Your task to perform on an android device: turn off data saver in the chrome app Image 0: 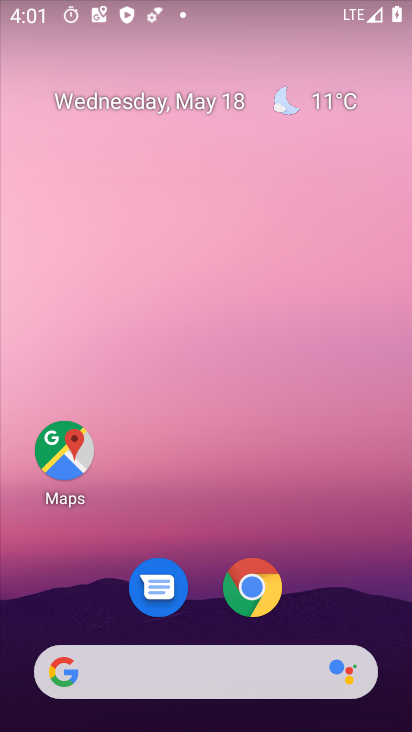
Step 0: drag from (189, 621) to (220, 208)
Your task to perform on an android device: turn off data saver in the chrome app Image 1: 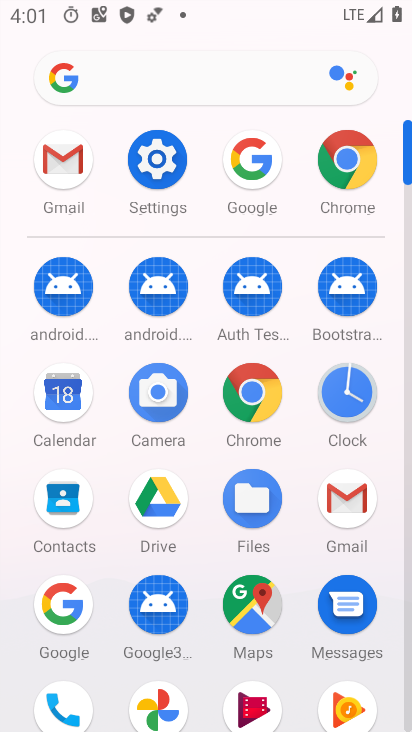
Step 1: click (351, 184)
Your task to perform on an android device: turn off data saver in the chrome app Image 2: 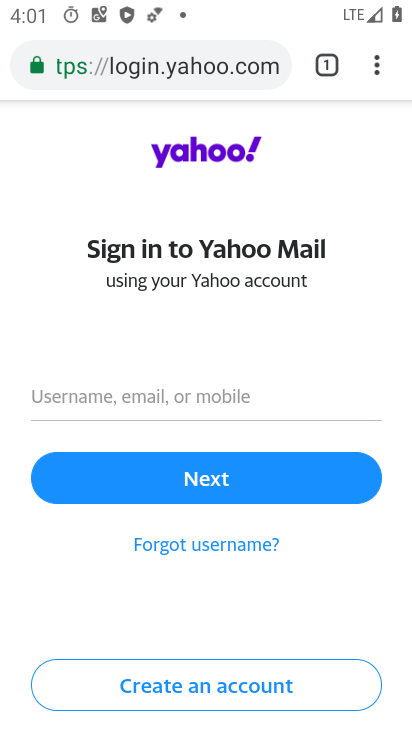
Step 2: click (383, 71)
Your task to perform on an android device: turn off data saver in the chrome app Image 3: 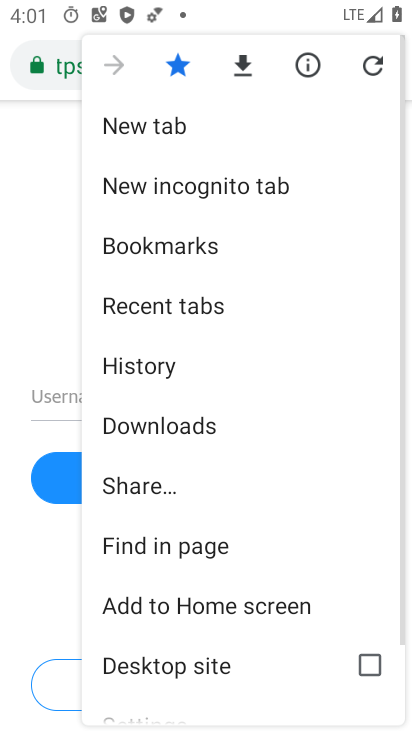
Step 3: drag from (219, 495) to (218, 187)
Your task to perform on an android device: turn off data saver in the chrome app Image 4: 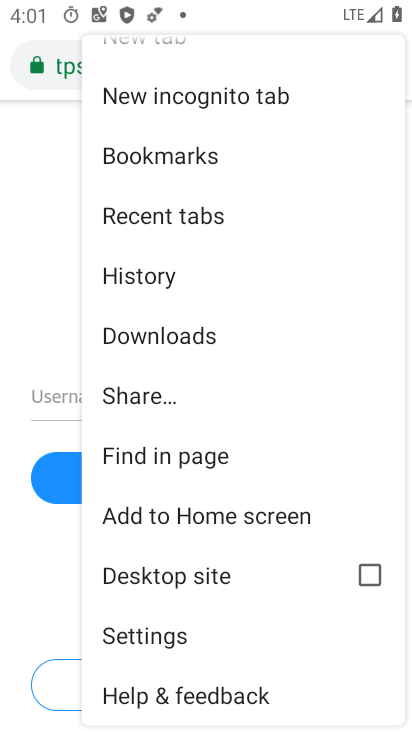
Step 4: click (165, 644)
Your task to perform on an android device: turn off data saver in the chrome app Image 5: 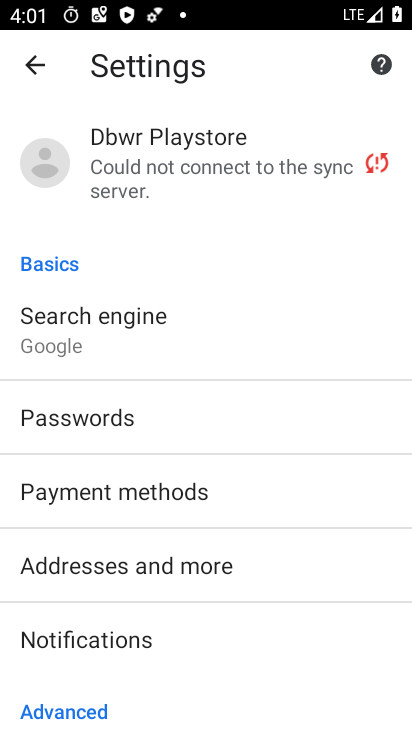
Step 5: drag from (167, 631) to (199, 330)
Your task to perform on an android device: turn off data saver in the chrome app Image 6: 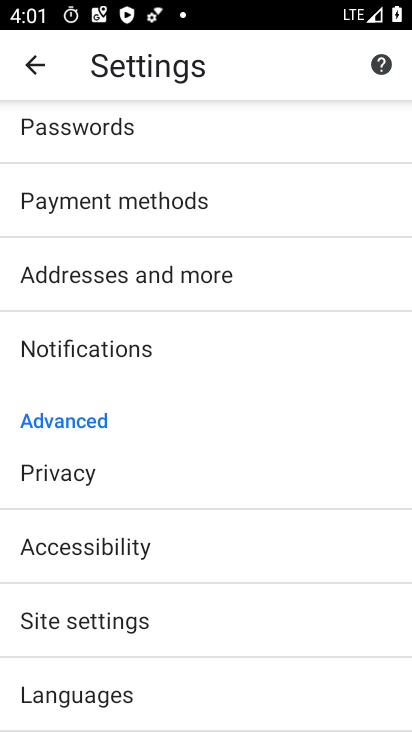
Step 6: drag from (134, 646) to (176, 315)
Your task to perform on an android device: turn off data saver in the chrome app Image 7: 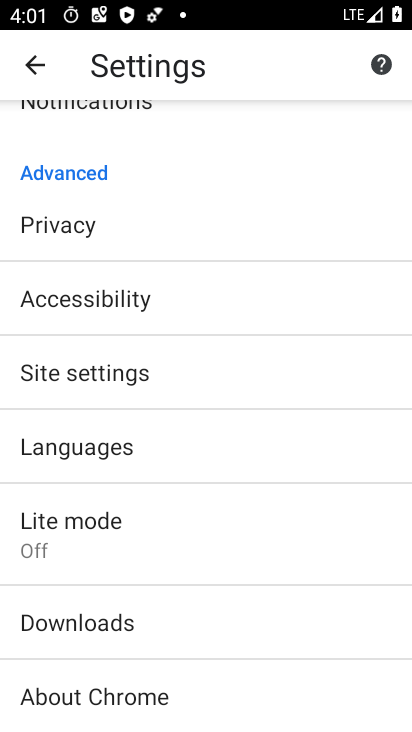
Step 7: drag from (164, 606) to (198, 391)
Your task to perform on an android device: turn off data saver in the chrome app Image 8: 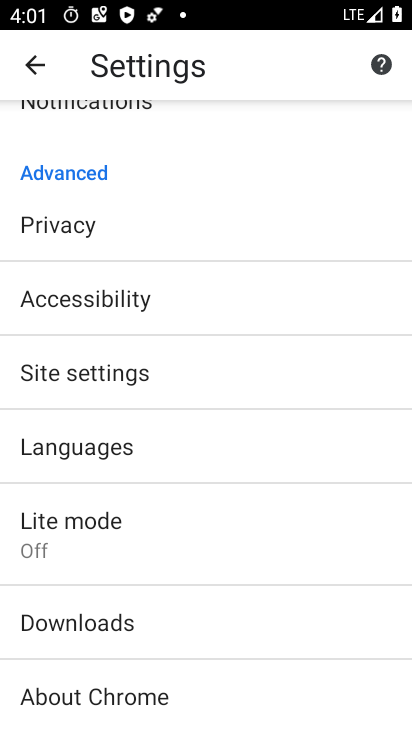
Step 8: click (160, 553)
Your task to perform on an android device: turn off data saver in the chrome app Image 9: 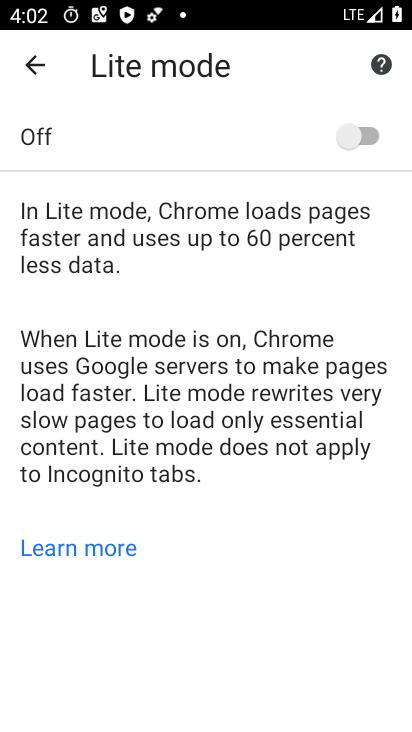
Step 9: task complete